Your task to perform on an android device: check the backup settings in the google photos Image 0: 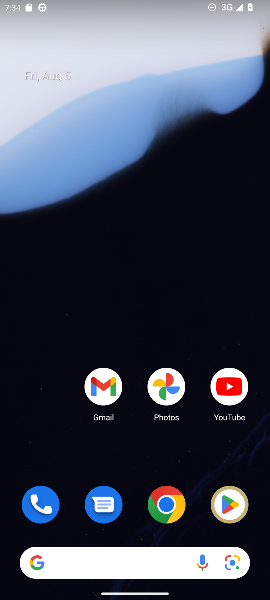
Step 0: click (160, 397)
Your task to perform on an android device: check the backup settings in the google photos Image 1: 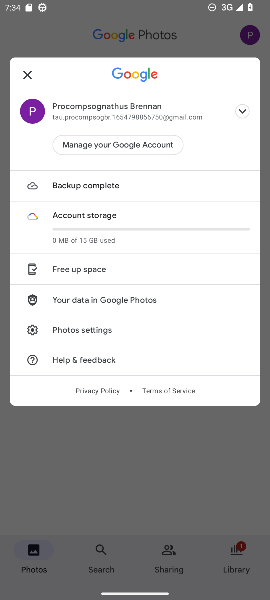
Step 1: click (78, 336)
Your task to perform on an android device: check the backup settings in the google photos Image 2: 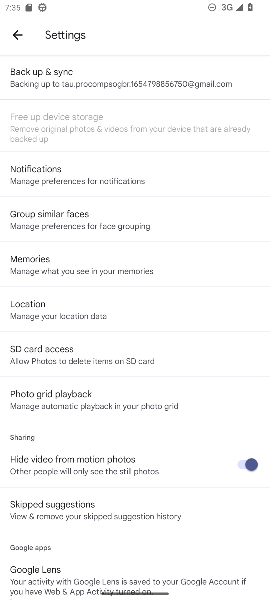
Step 2: click (109, 82)
Your task to perform on an android device: check the backup settings in the google photos Image 3: 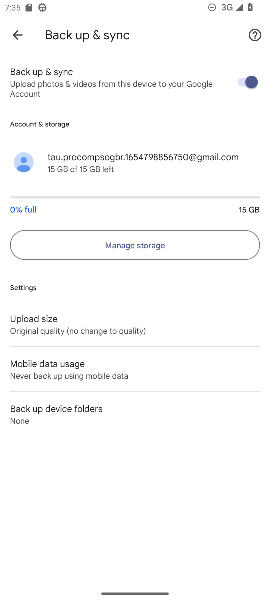
Step 3: task complete